Your task to perform on an android device: What is the news today? Image 0: 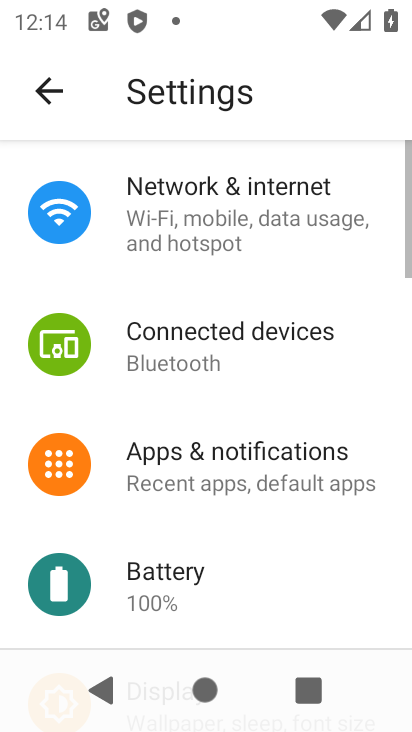
Step 0: press home button
Your task to perform on an android device: What is the news today? Image 1: 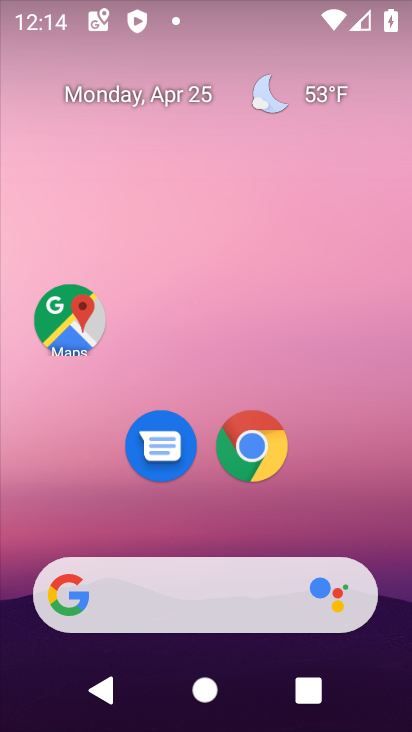
Step 1: click (172, 599)
Your task to perform on an android device: What is the news today? Image 2: 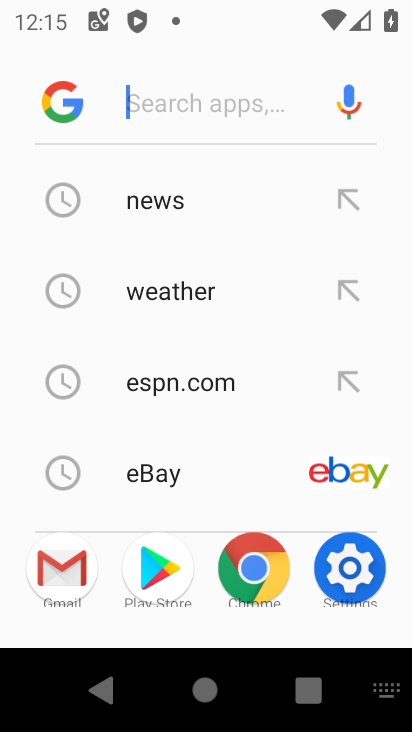
Step 2: type "news today"
Your task to perform on an android device: What is the news today? Image 3: 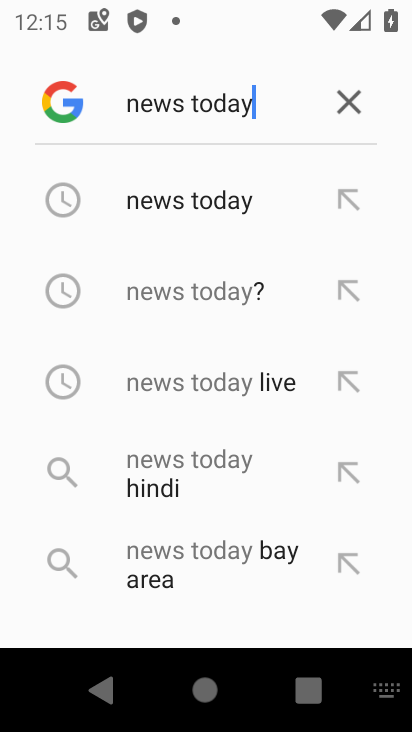
Step 3: click (177, 198)
Your task to perform on an android device: What is the news today? Image 4: 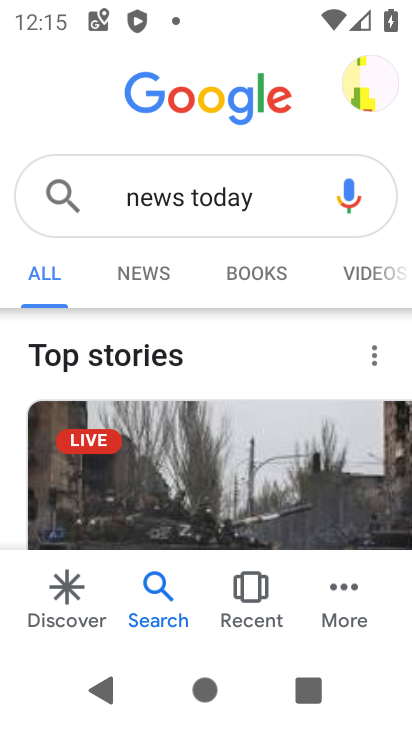
Step 4: task complete